Your task to perform on an android device: change alarm snooze length Image 0: 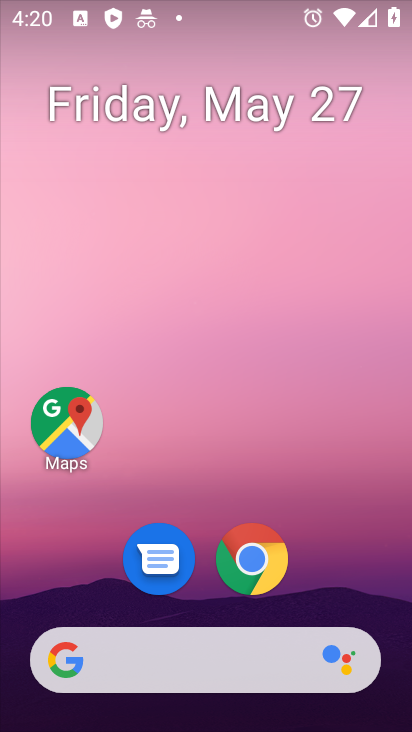
Step 0: drag from (356, 680) to (353, 35)
Your task to perform on an android device: change alarm snooze length Image 1: 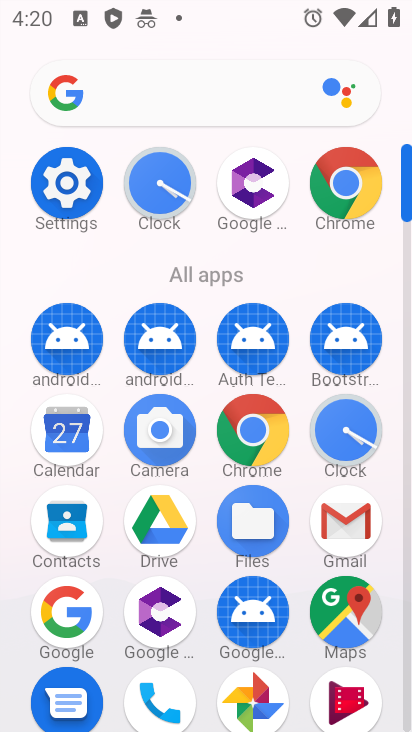
Step 1: click (340, 417)
Your task to perform on an android device: change alarm snooze length Image 2: 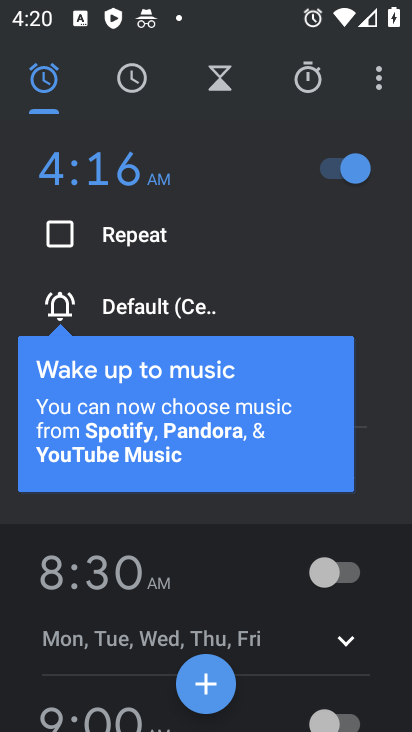
Step 2: click (376, 78)
Your task to perform on an android device: change alarm snooze length Image 3: 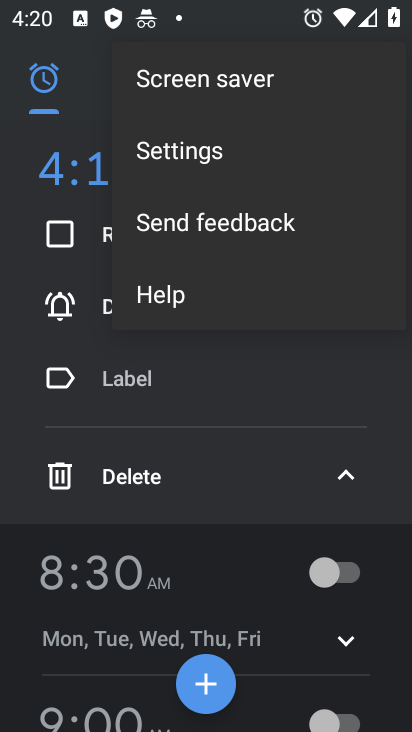
Step 3: click (238, 148)
Your task to perform on an android device: change alarm snooze length Image 4: 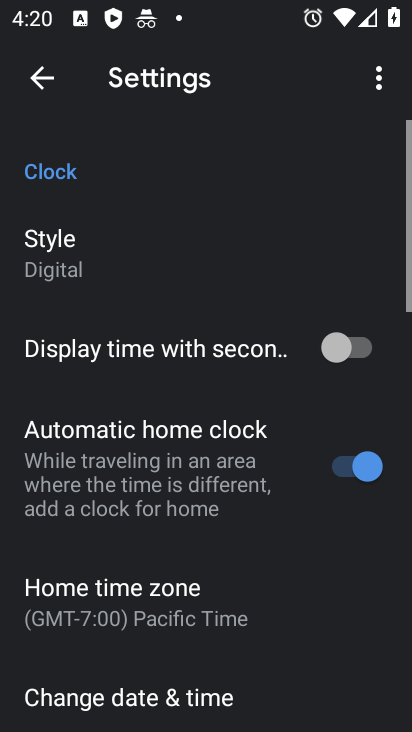
Step 4: drag from (257, 618) to (301, 218)
Your task to perform on an android device: change alarm snooze length Image 5: 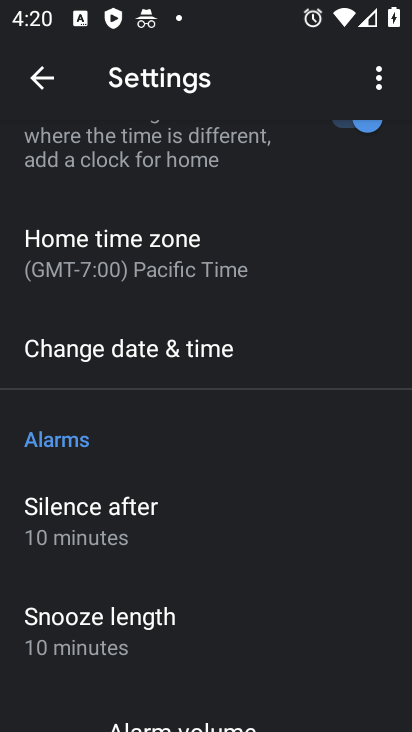
Step 5: click (187, 639)
Your task to perform on an android device: change alarm snooze length Image 6: 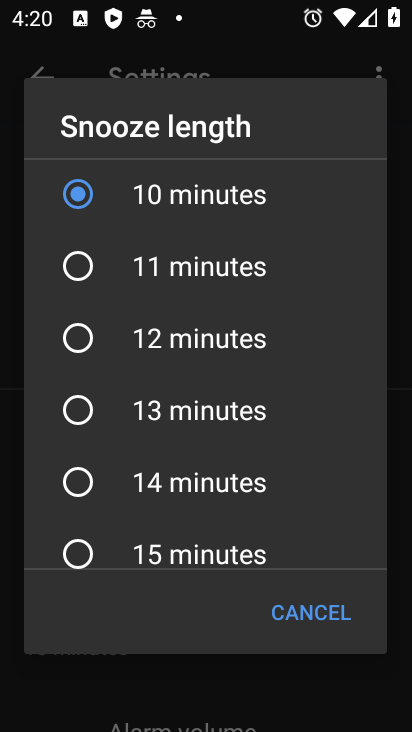
Step 6: click (85, 261)
Your task to perform on an android device: change alarm snooze length Image 7: 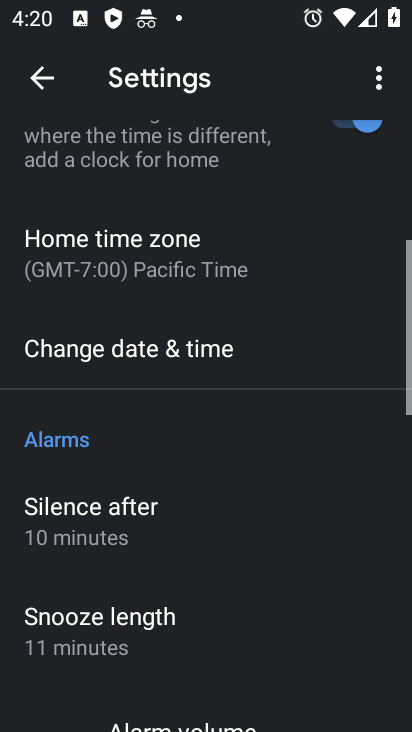
Step 7: task complete